Your task to perform on an android device: Turn off the flashlight Image 0: 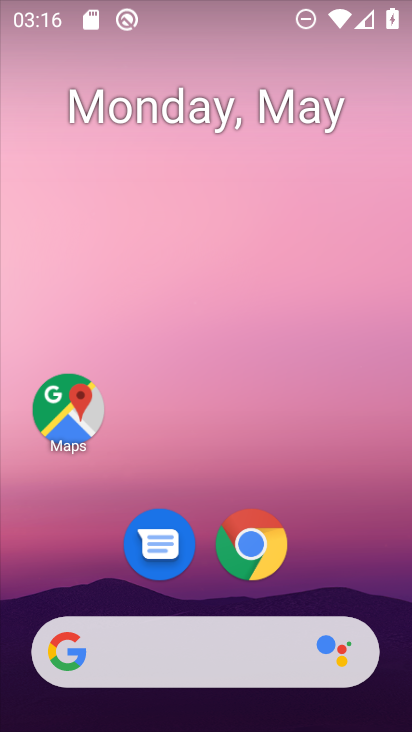
Step 0: drag from (244, 2) to (227, 320)
Your task to perform on an android device: Turn off the flashlight Image 1: 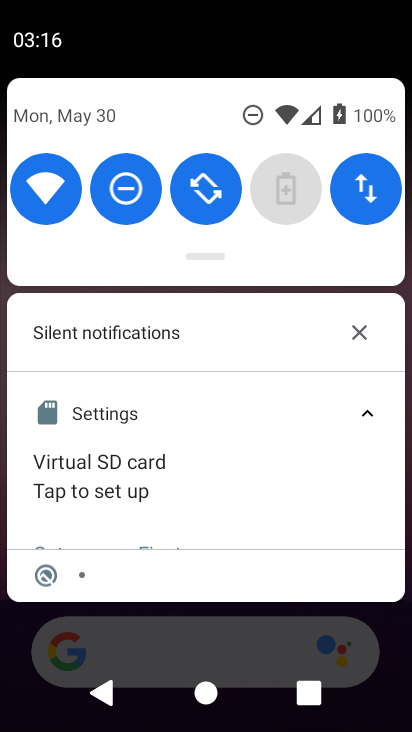
Step 1: drag from (227, 102) to (244, 356)
Your task to perform on an android device: Turn off the flashlight Image 2: 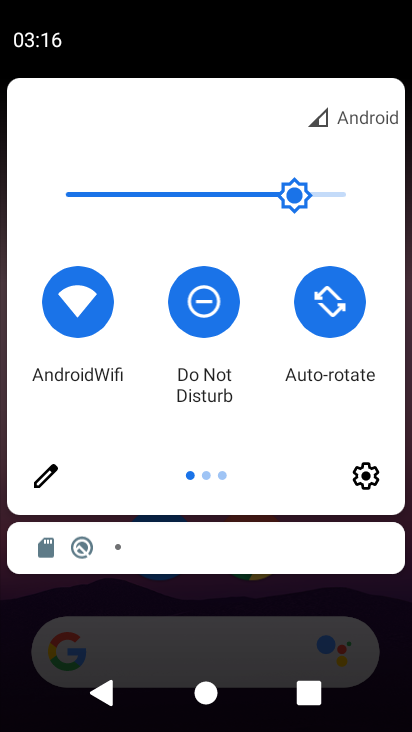
Step 2: click (51, 478)
Your task to perform on an android device: Turn off the flashlight Image 3: 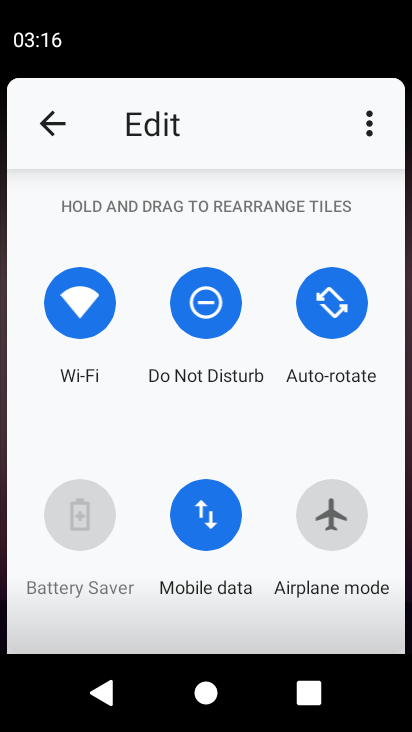
Step 3: task complete